Your task to perform on an android device: Open display settings Image 0: 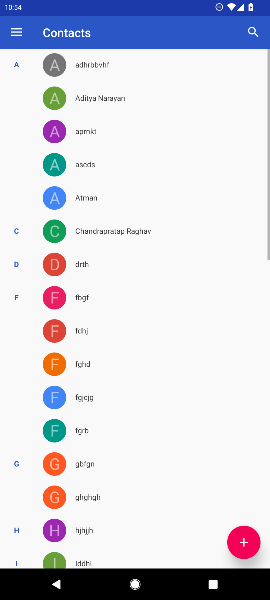
Step 0: press home button
Your task to perform on an android device: Open display settings Image 1: 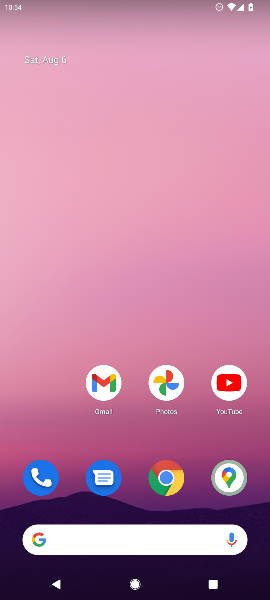
Step 1: drag from (146, 516) to (134, 98)
Your task to perform on an android device: Open display settings Image 2: 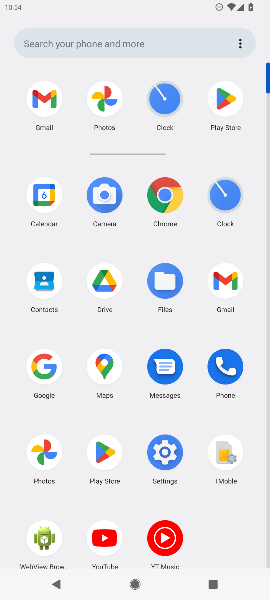
Step 2: click (168, 454)
Your task to perform on an android device: Open display settings Image 3: 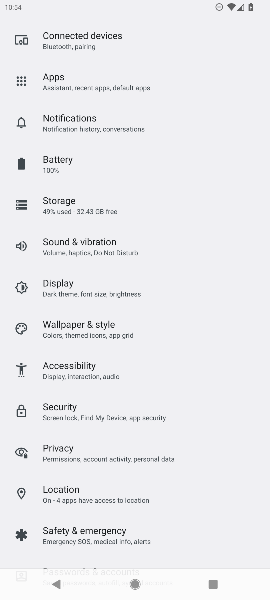
Step 3: click (55, 156)
Your task to perform on an android device: Open display settings Image 4: 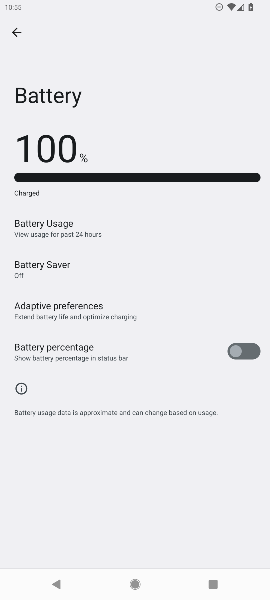
Step 4: task complete